Your task to perform on an android device: Open Yahoo.com Image 0: 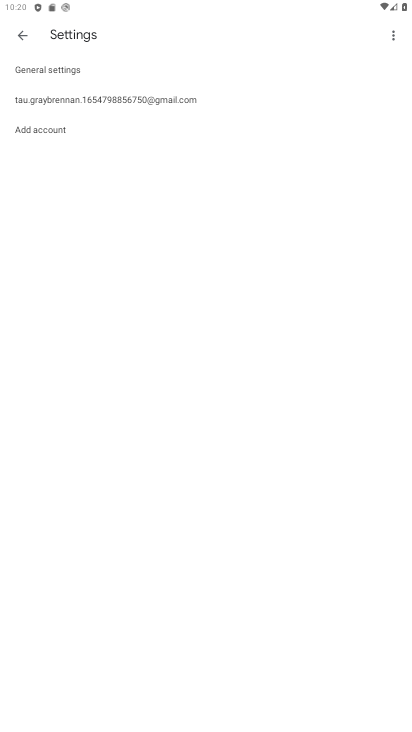
Step 0: press home button
Your task to perform on an android device: Open Yahoo.com Image 1: 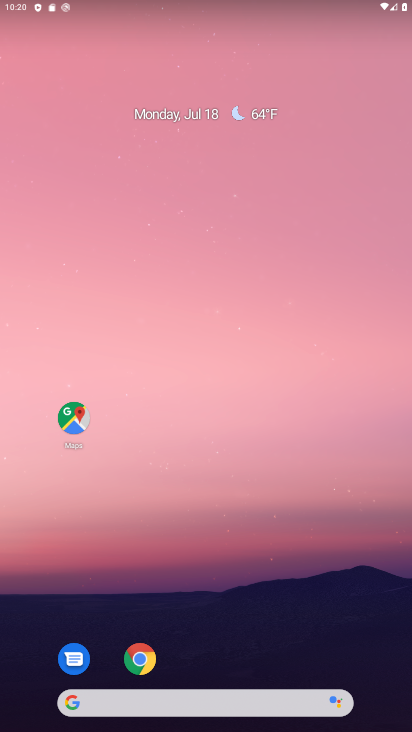
Step 1: drag from (242, 616) to (269, 103)
Your task to perform on an android device: Open Yahoo.com Image 2: 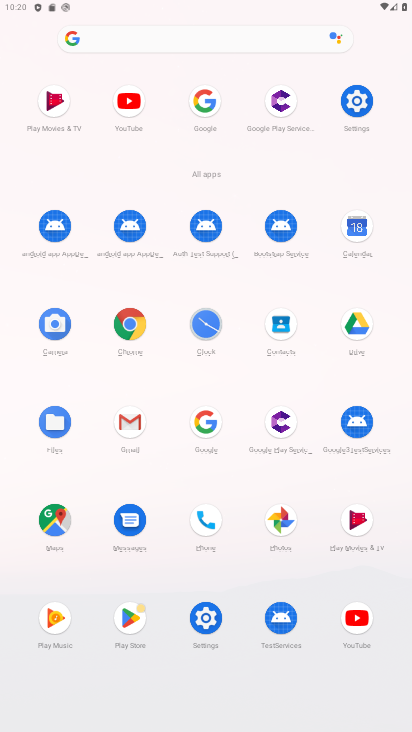
Step 2: click (131, 326)
Your task to perform on an android device: Open Yahoo.com Image 3: 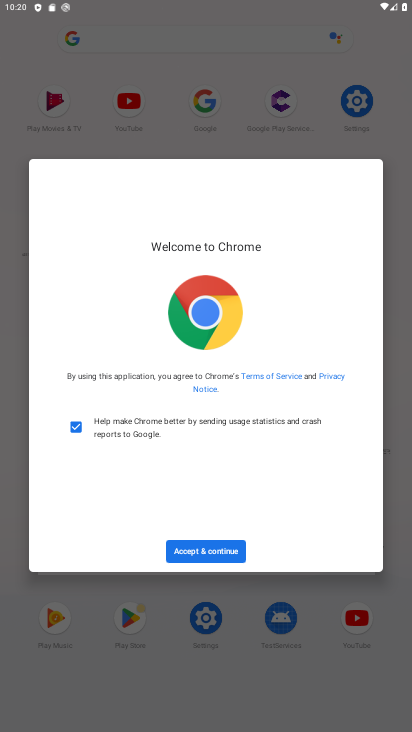
Step 3: click (224, 549)
Your task to perform on an android device: Open Yahoo.com Image 4: 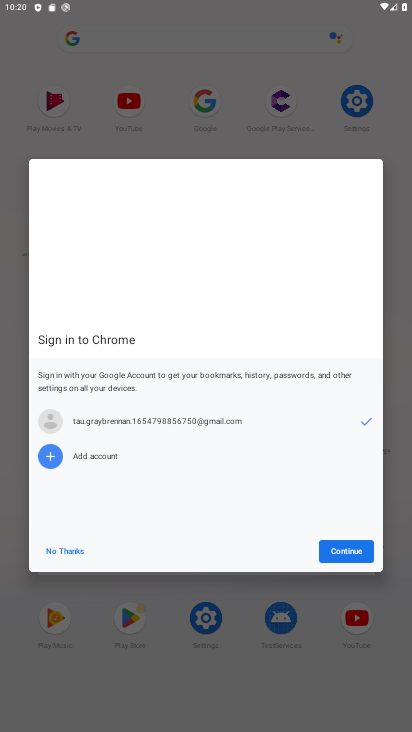
Step 4: click (354, 548)
Your task to perform on an android device: Open Yahoo.com Image 5: 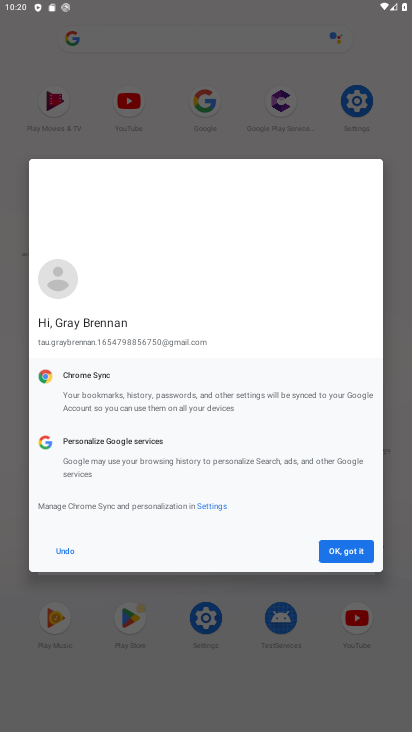
Step 5: click (354, 548)
Your task to perform on an android device: Open Yahoo.com Image 6: 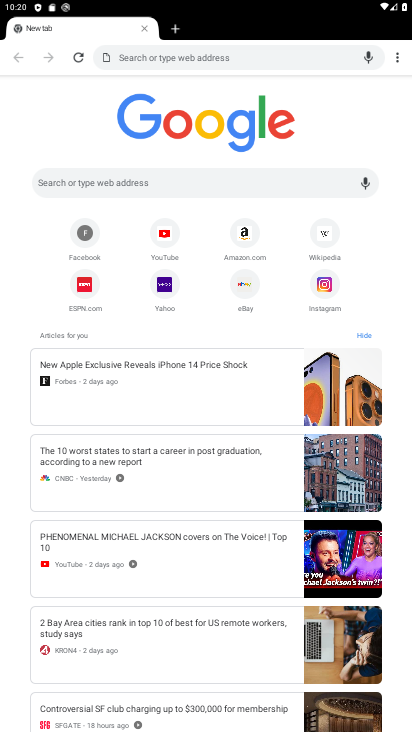
Step 6: click (164, 283)
Your task to perform on an android device: Open Yahoo.com Image 7: 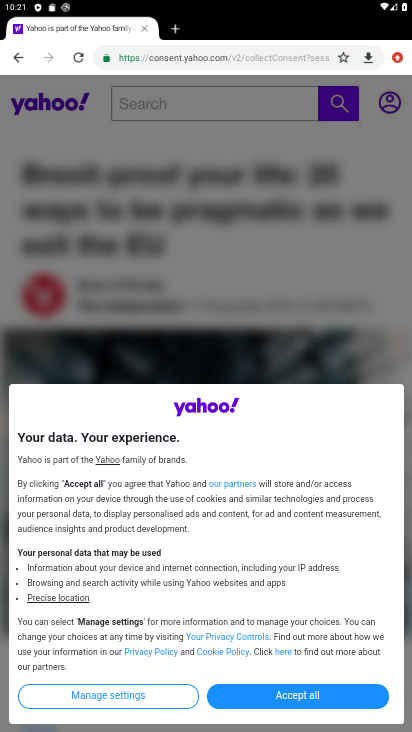
Step 7: task complete